Your task to perform on an android device: change the clock display to digital Image 0: 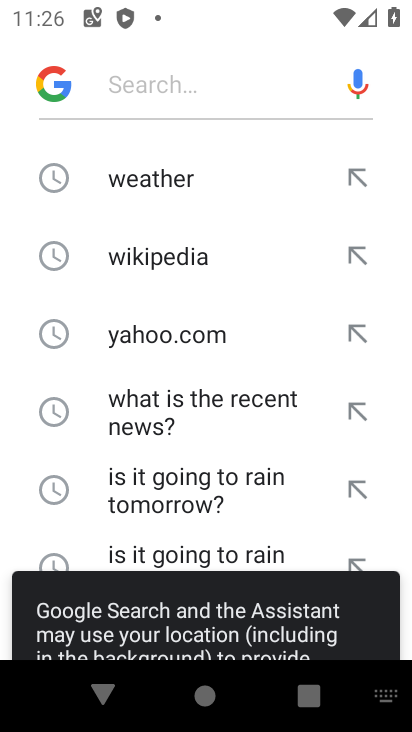
Step 0: press home button
Your task to perform on an android device: change the clock display to digital Image 1: 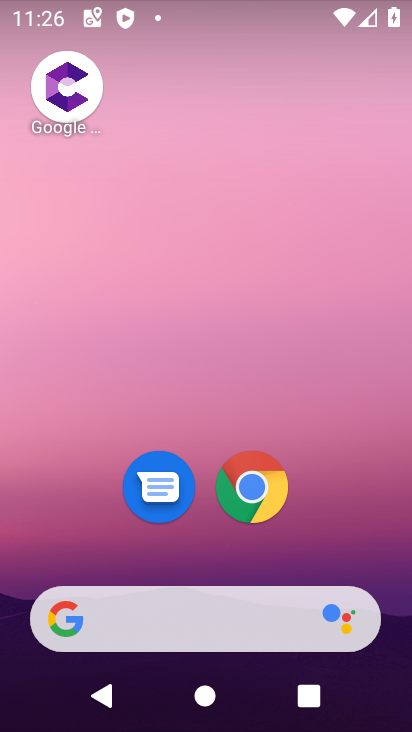
Step 1: drag from (368, 548) to (372, 135)
Your task to perform on an android device: change the clock display to digital Image 2: 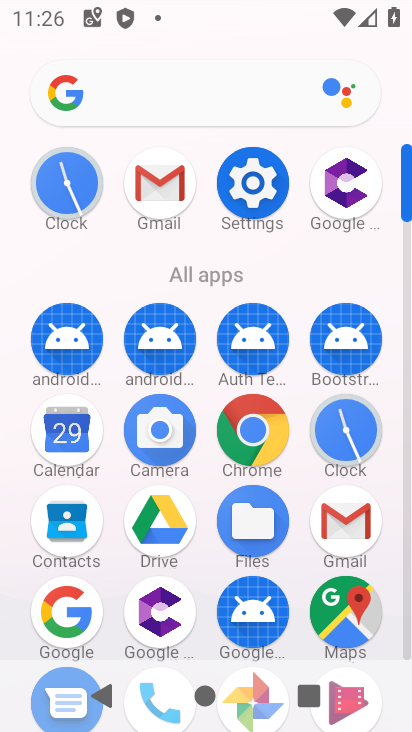
Step 2: click (347, 435)
Your task to perform on an android device: change the clock display to digital Image 3: 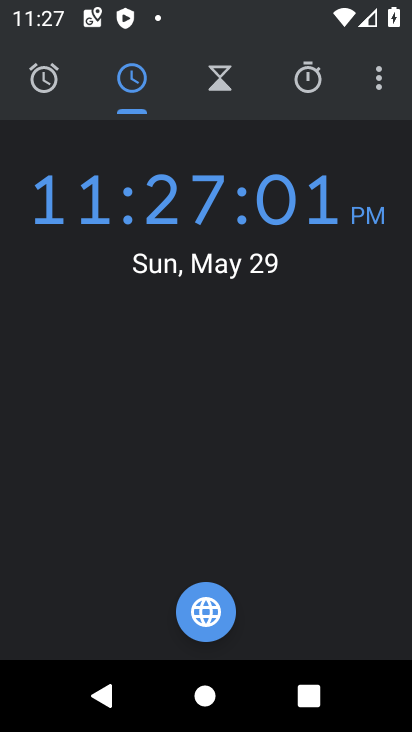
Step 3: click (377, 88)
Your task to perform on an android device: change the clock display to digital Image 4: 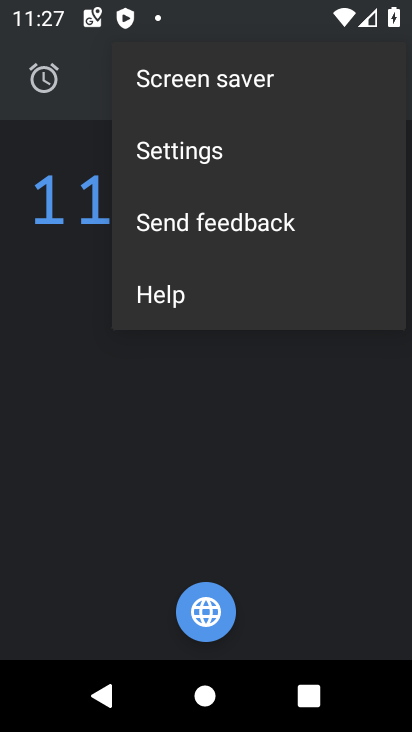
Step 4: click (218, 148)
Your task to perform on an android device: change the clock display to digital Image 5: 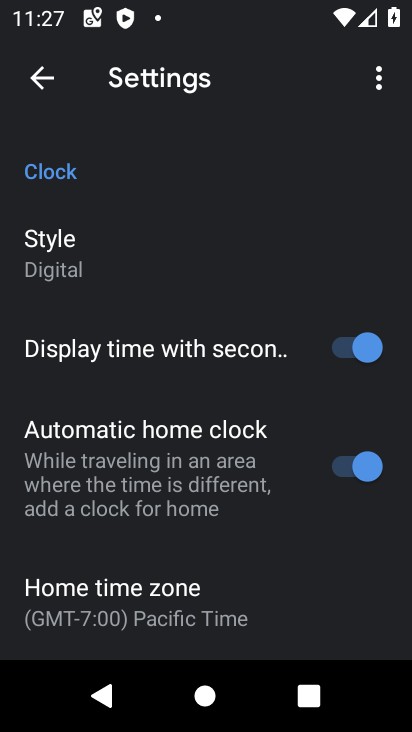
Step 5: task complete